Your task to perform on an android device: stop showing notifications on the lock screen Image 0: 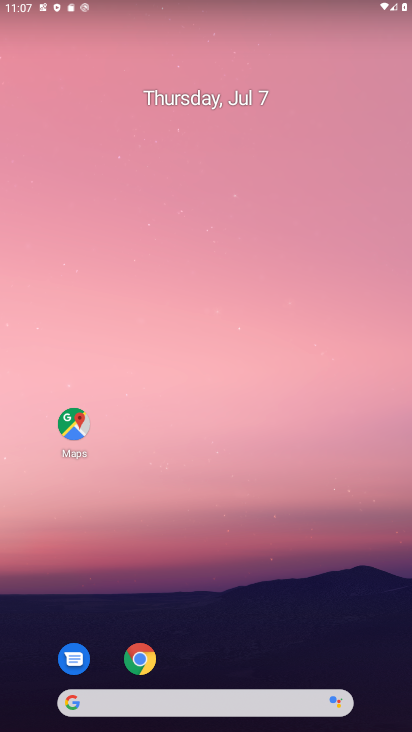
Step 0: press home button
Your task to perform on an android device: stop showing notifications on the lock screen Image 1: 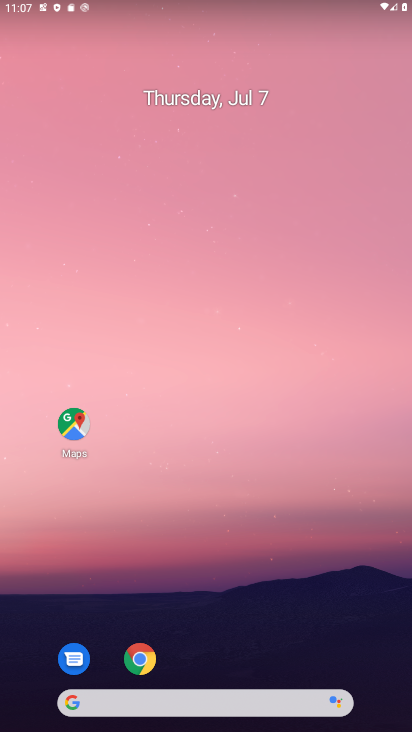
Step 1: drag from (213, 663) to (236, 1)
Your task to perform on an android device: stop showing notifications on the lock screen Image 2: 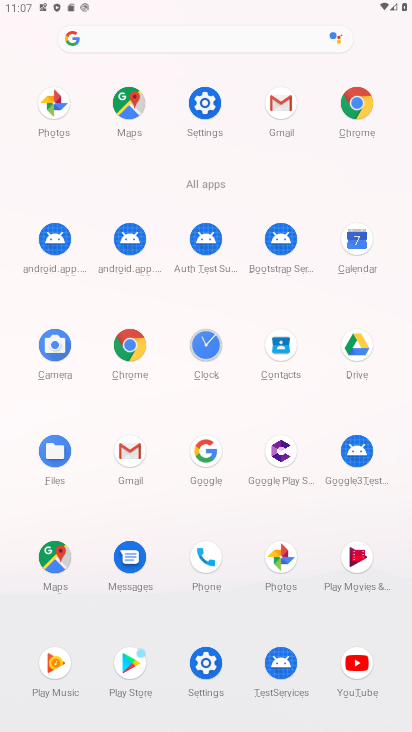
Step 2: click (200, 97)
Your task to perform on an android device: stop showing notifications on the lock screen Image 3: 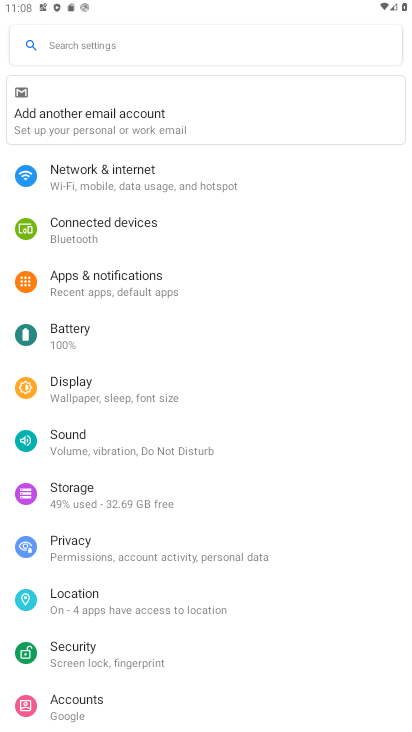
Step 3: click (170, 276)
Your task to perform on an android device: stop showing notifications on the lock screen Image 4: 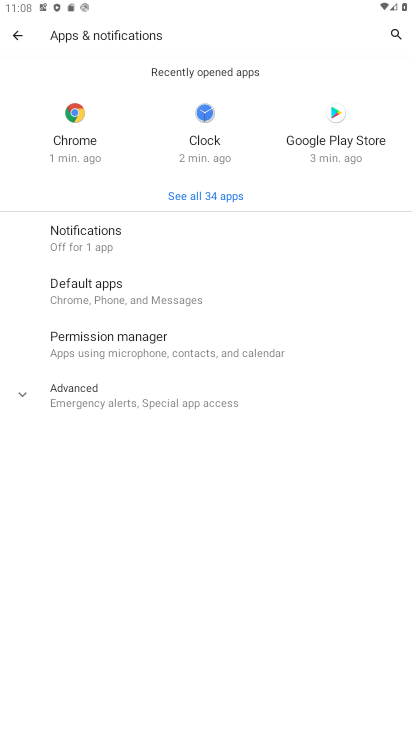
Step 4: click (136, 233)
Your task to perform on an android device: stop showing notifications on the lock screen Image 5: 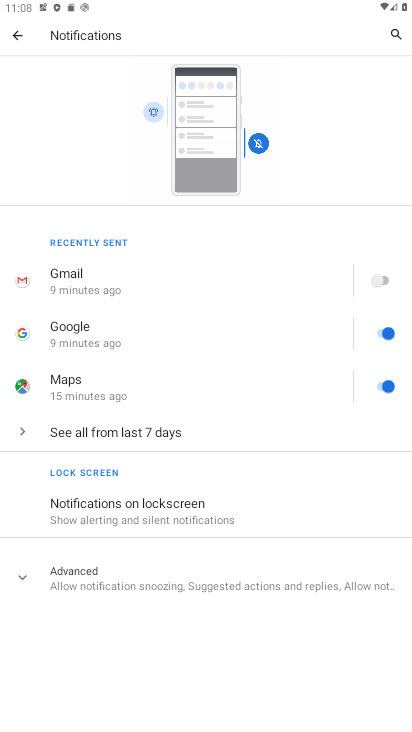
Step 5: click (113, 514)
Your task to perform on an android device: stop showing notifications on the lock screen Image 6: 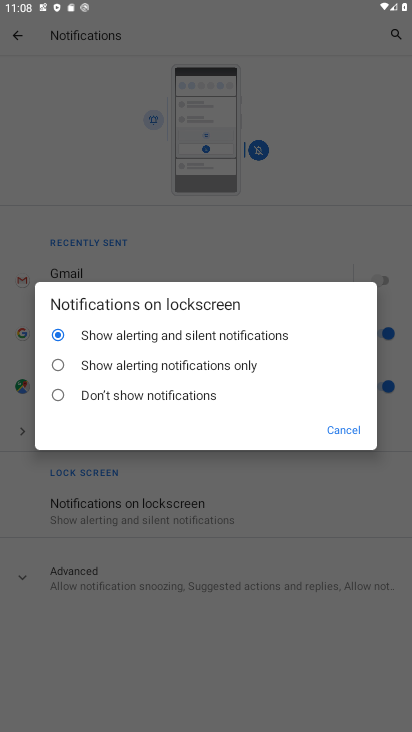
Step 6: click (57, 397)
Your task to perform on an android device: stop showing notifications on the lock screen Image 7: 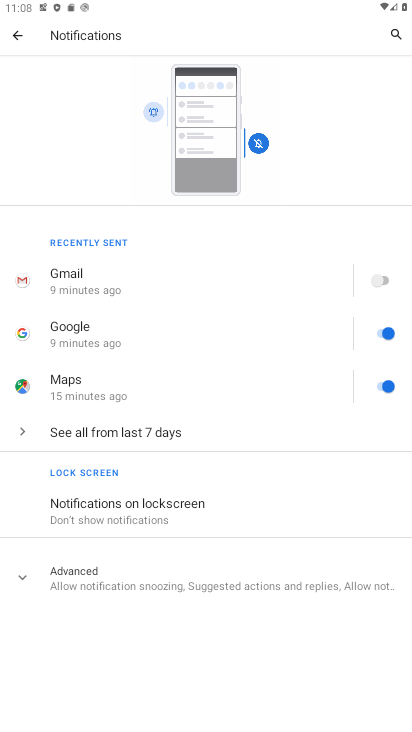
Step 7: task complete